Your task to perform on an android device: Turn on the flashlight Image 0: 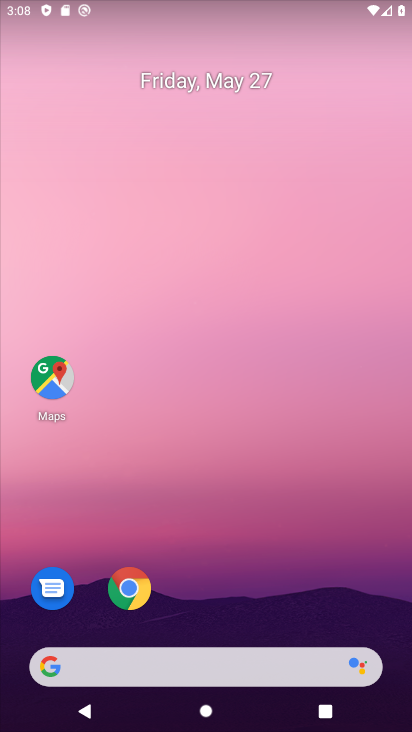
Step 0: drag from (305, 567) to (274, 137)
Your task to perform on an android device: Turn on the flashlight Image 1: 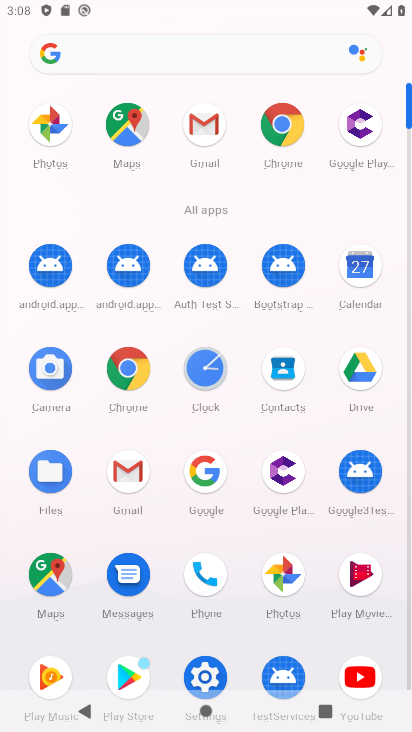
Step 1: click (207, 675)
Your task to perform on an android device: Turn on the flashlight Image 2: 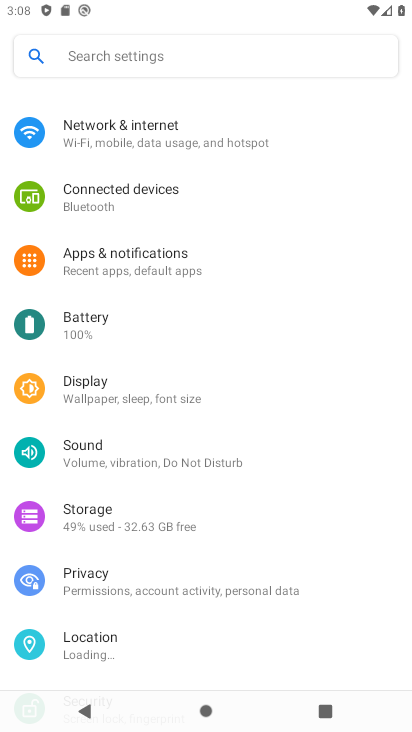
Step 2: drag from (321, 12) to (287, 628)
Your task to perform on an android device: Turn on the flashlight Image 3: 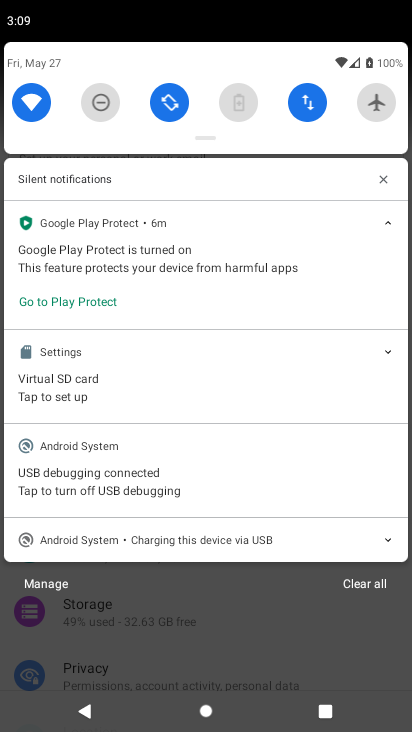
Step 3: drag from (225, 141) to (116, 729)
Your task to perform on an android device: Turn on the flashlight Image 4: 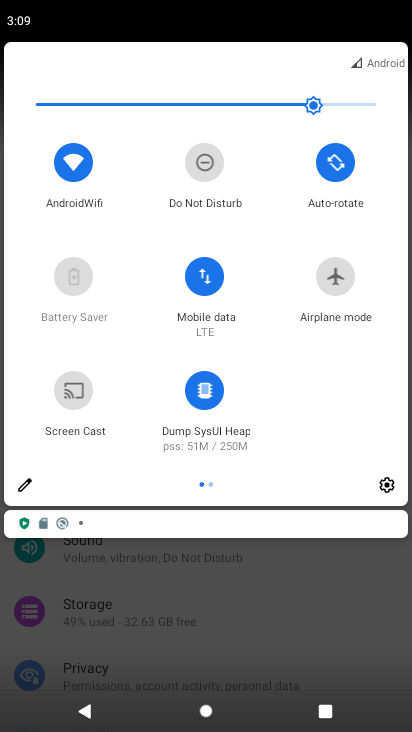
Step 4: click (28, 476)
Your task to perform on an android device: Turn on the flashlight Image 5: 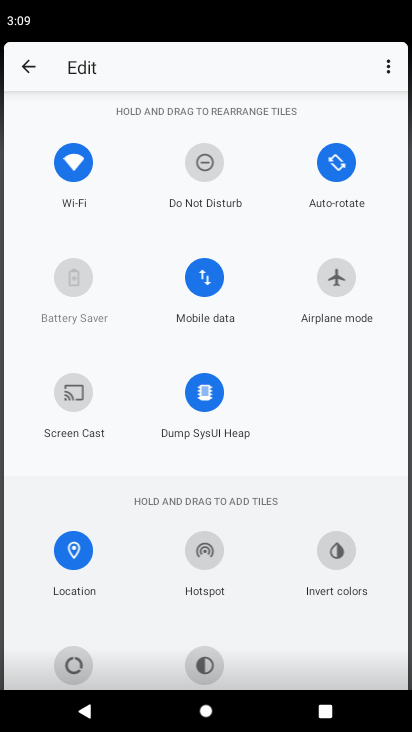
Step 5: task complete